Your task to perform on an android device: see creations saved in the google photos Image 0: 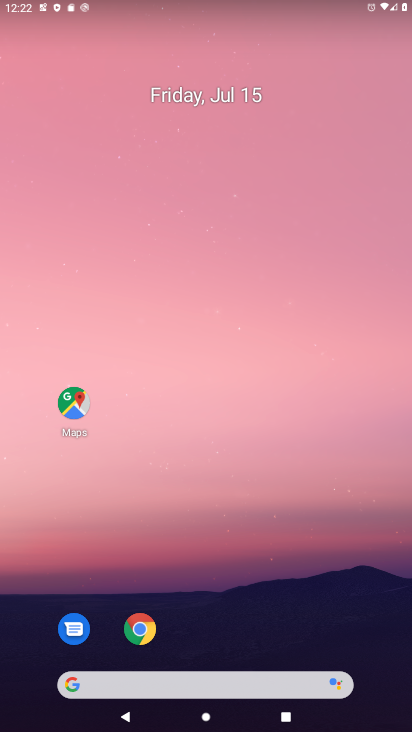
Step 0: drag from (226, 626) to (154, 61)
Your task to perform on an android device: see creations saved in the google photos Image 1: 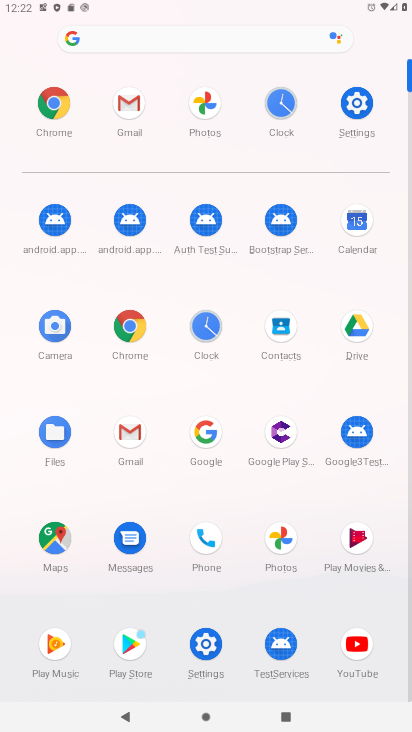
Step 1: click (198, 107)
Your task to perform on an android device: see creations saved in the google photos Image 2: 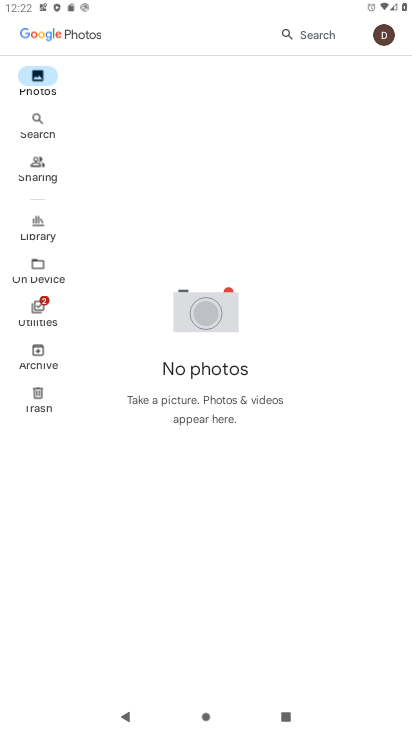
Step 2: click (287, 33)
Your task to perform on an android device: see creations saved in the google photos Image 3: 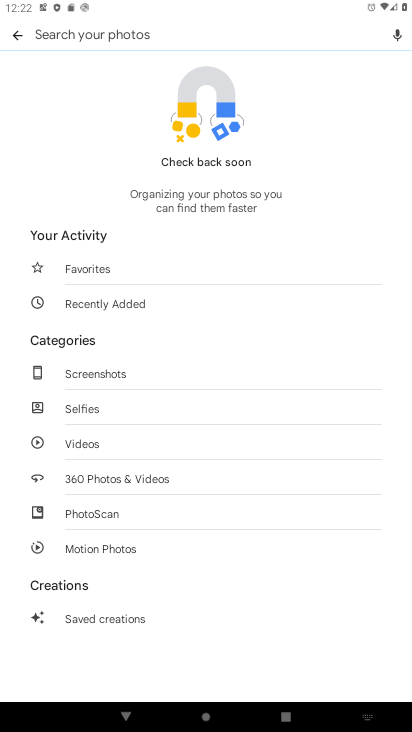
Step 3: click (105, 619)
Your task to perform on an android device: see creations saved in the google photos Image 4: 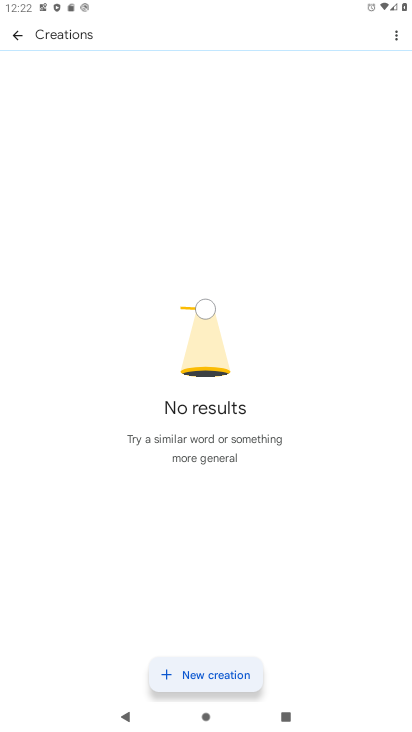
Step 4: task complete